Your task to perform on an android device: Search for Italian restaurants on Maps Image 0: 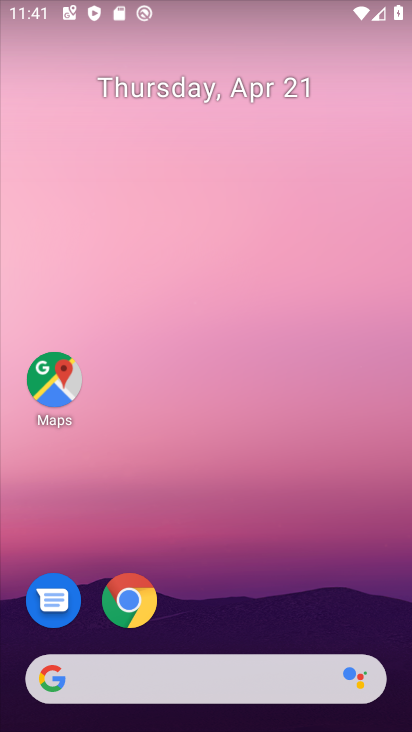
Step 0: click (65, 393)
Your task to perform on an android device: Search for Italian restaurants on Maps Image 1: 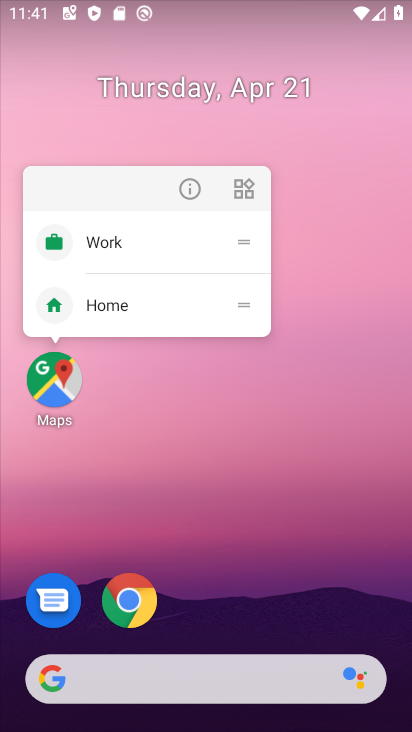
Step 1: click (57, 378)
Your task to perform on an android device: Search for Italian restaurants on Maps Image 2: 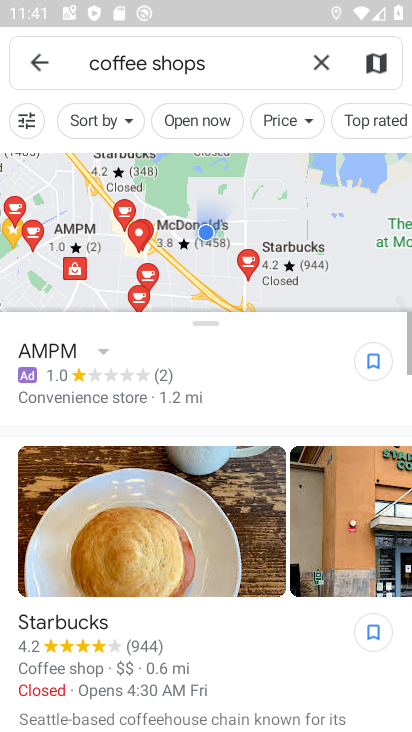
Step 2: click (327, 68)
Your task to perform on an android device: Search for Italian restaurants on Maps Image 3: 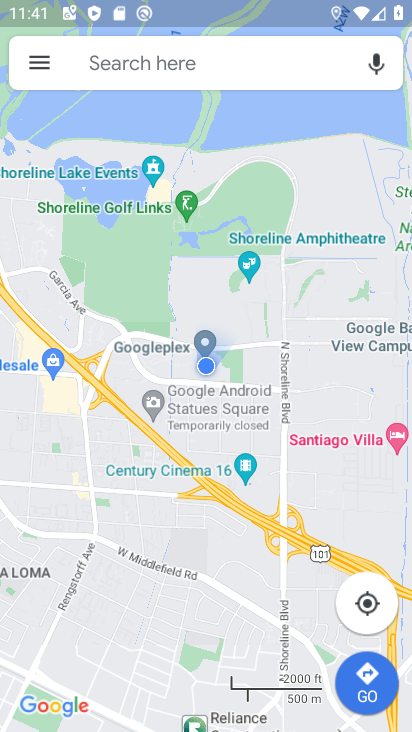
Step 3: click (198, 72)
Your task to perform on an android device: Search for Italian restaurants on Maps Image 4: 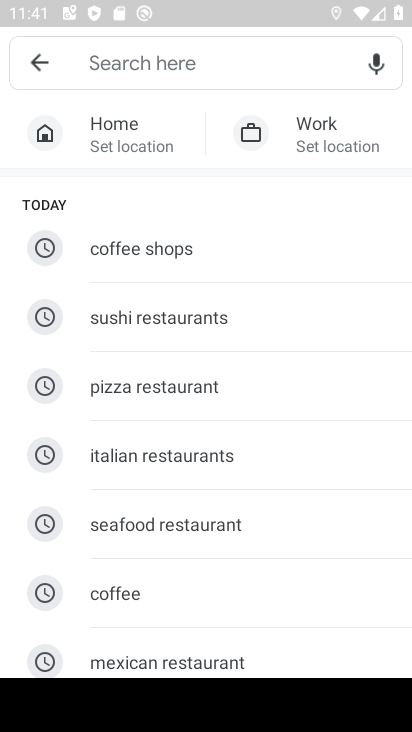
Step 4: type "Italian Restaurants"
Your task to perform on an android device: Search for Italian restaurants on Maps Image 5: 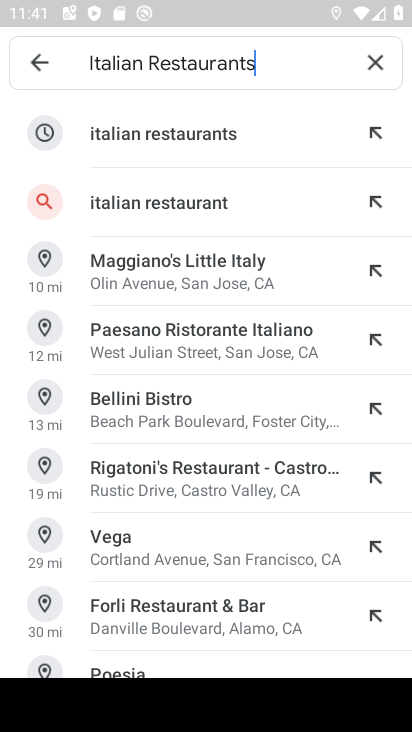
Step 5: click (125, 131)
Your task to perform on an android device: Search for Italian restaurants on Maps Image 6: 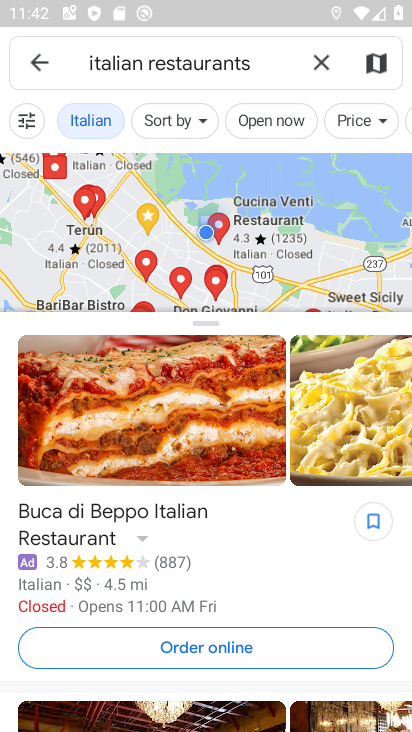
Step 6: task complete